Your task to perform on an android device: turn on improve location accuracy Image 0: 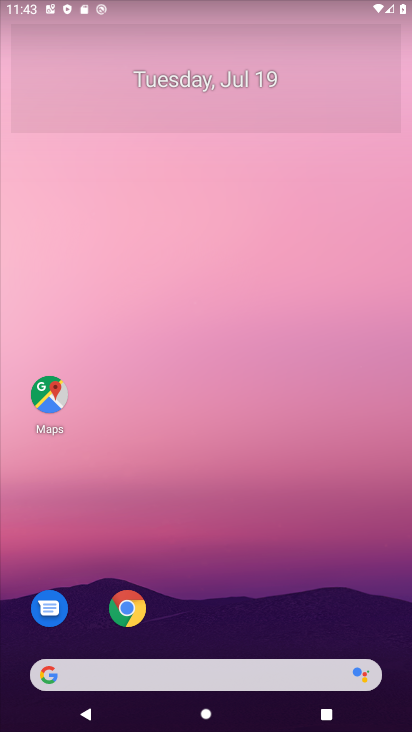
Step 0: drag from (212, 624) to (209, 107)
Your task to perform on an android device: turn on improve location accuracy Image 1: 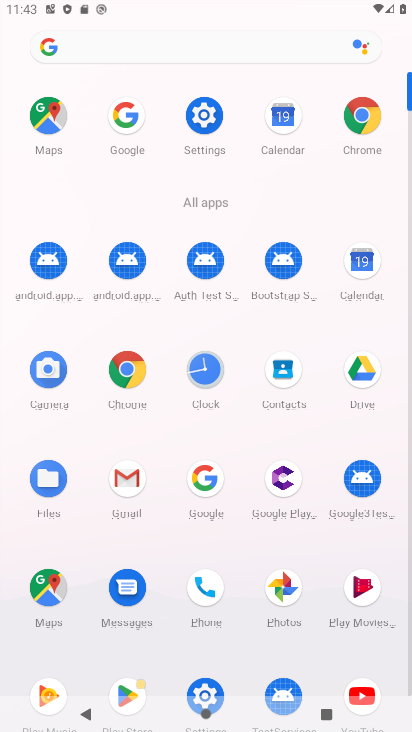
Step 1: click (205, 116)
Your task to perform on an android device: turn on improve location accuracy Image 2: 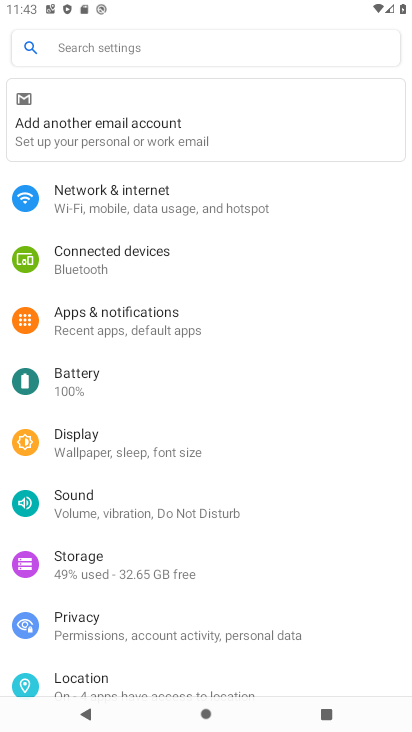
Step 2: click (81, 679)
Your task to perform on an android device: turn on improve location accuracy Image 3: 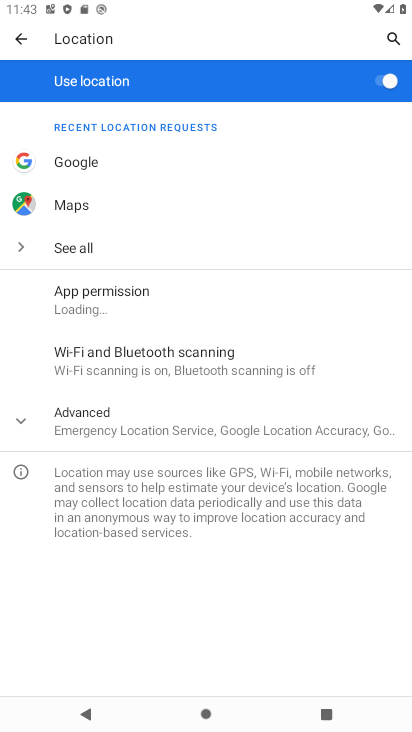
Step 3: click (61, 417)
Your task to perform on an android device: turn on improve location accuracy Image 4: 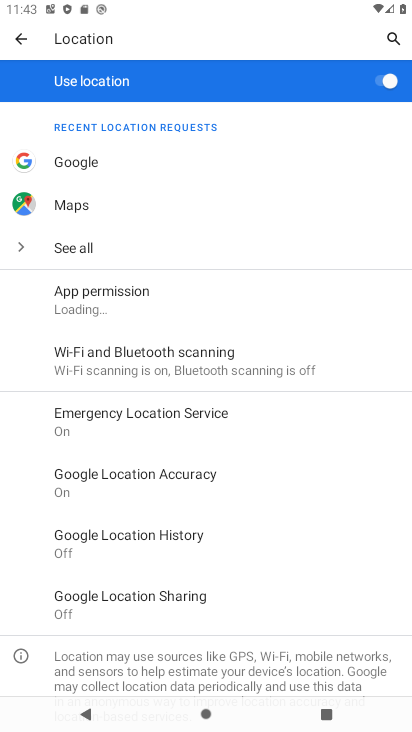
Step 4: click (158, 482)
Your task to perform on an android device: turn on improve location accuracy Image 5: 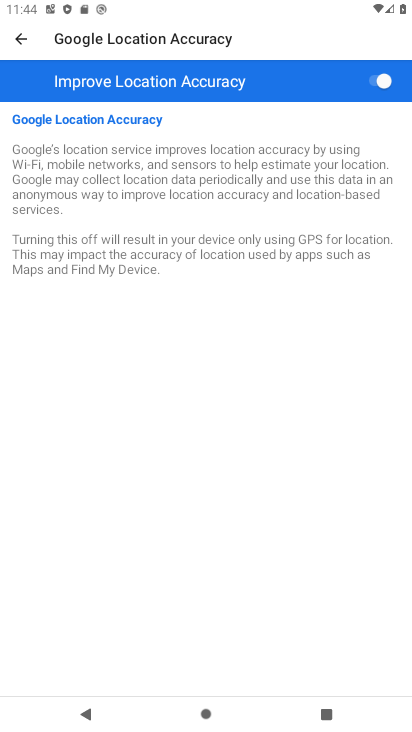
Step 5: task complete